Your task to perform on an android device: empty trash in google photos Image 0: 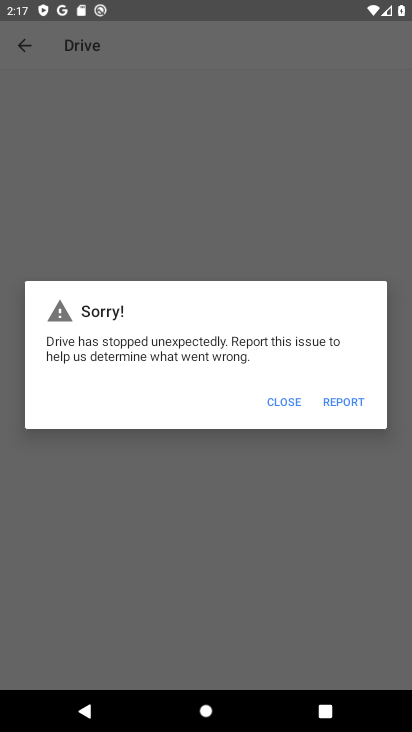
Step 0: click (274, 400)
Your task to perform on an android device: empty trash in google photos Image 1: 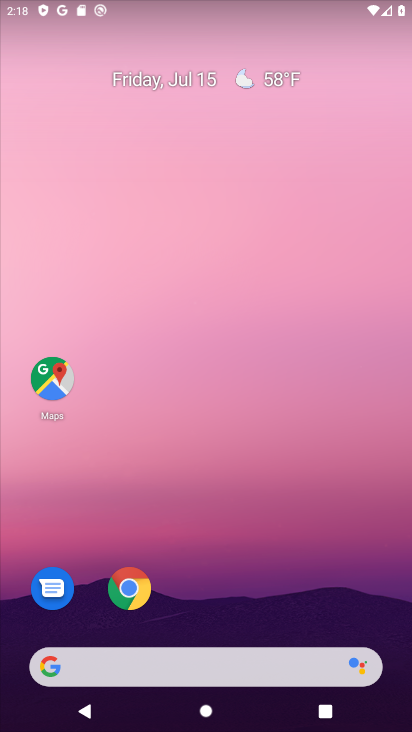
Step 1: drag from (256, 599) to (207, 124)
Your task to perform on an android device: empty trash in google photos Image 2: 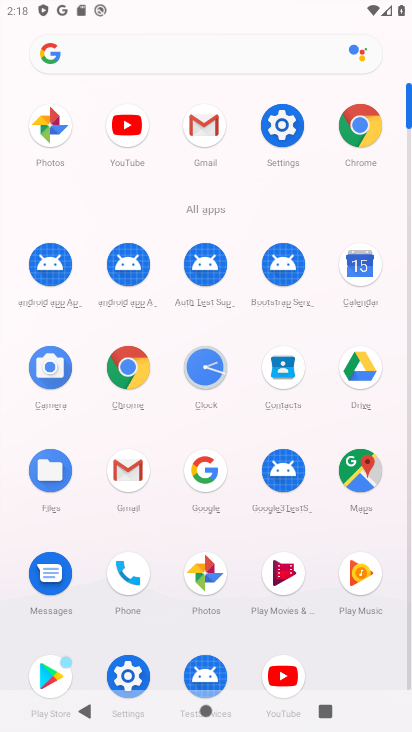
Step 2: click (48, 159)
Your task to perform on an android device: empty trash in google photos Image 3: 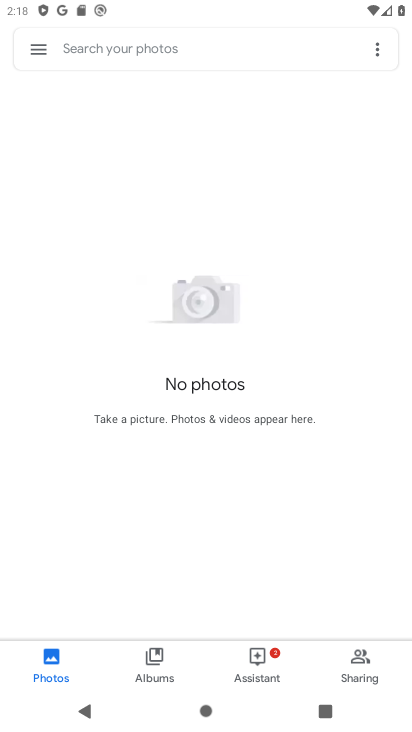
Step 3: click (47, 60)
Your task to perform on an android device: empty trash in google photos Image 4: 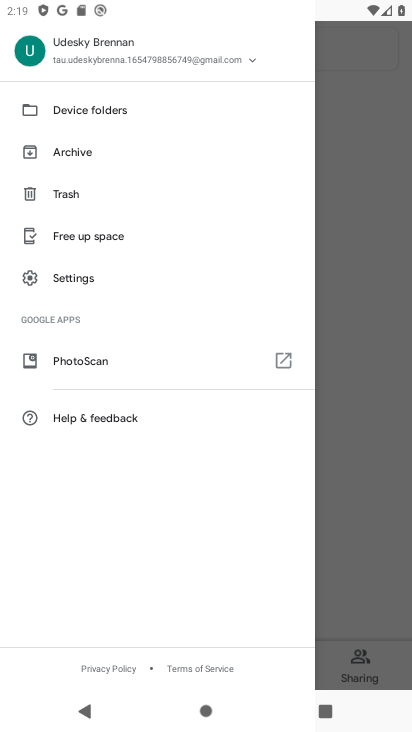
Step 4: click (67, 182)
Your task to perform on an android device: empty trash in google photos Image 5: 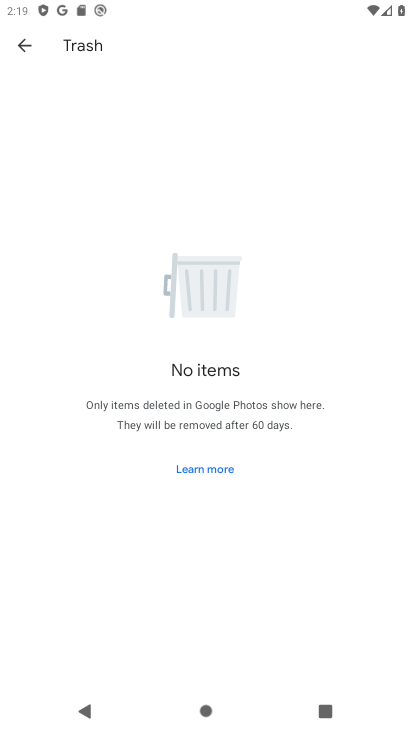
Step 5: task complete